Your task to perform on an android device: install app "Microsoft Excel" Image 0: 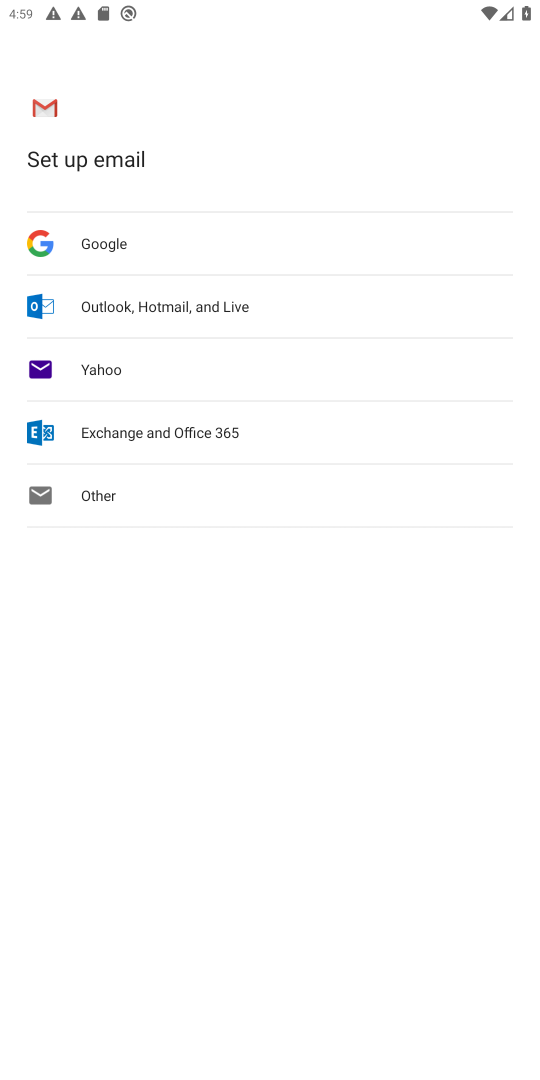
Step 0: press home button
Your task to perform on an android device: install app "Microsoft Excel" Image 1: 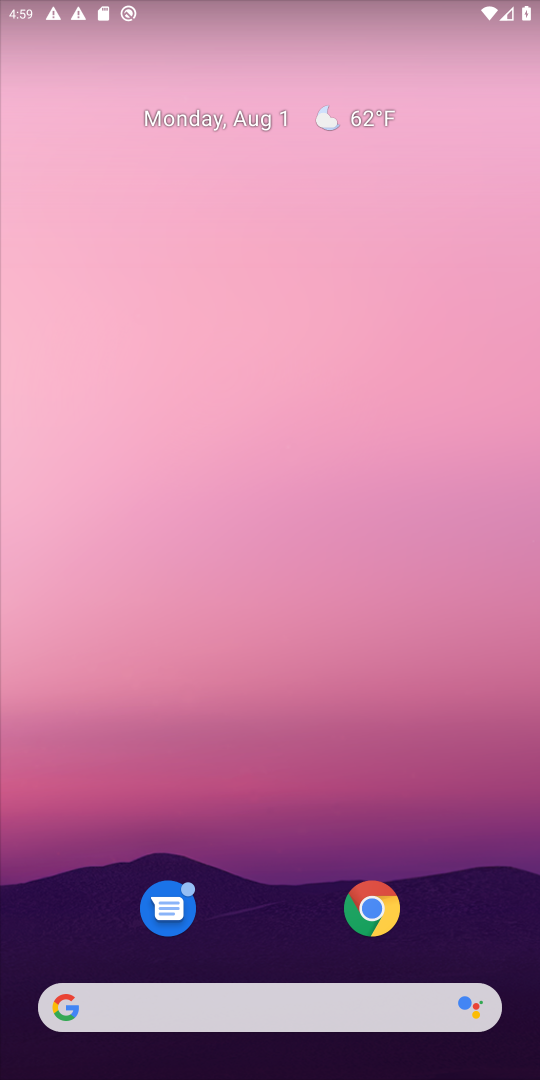
Step 1: drag from (240, 741) to (246, 61)
Your task to perform on an android device: install app "Microsoft Excel" Image 2: 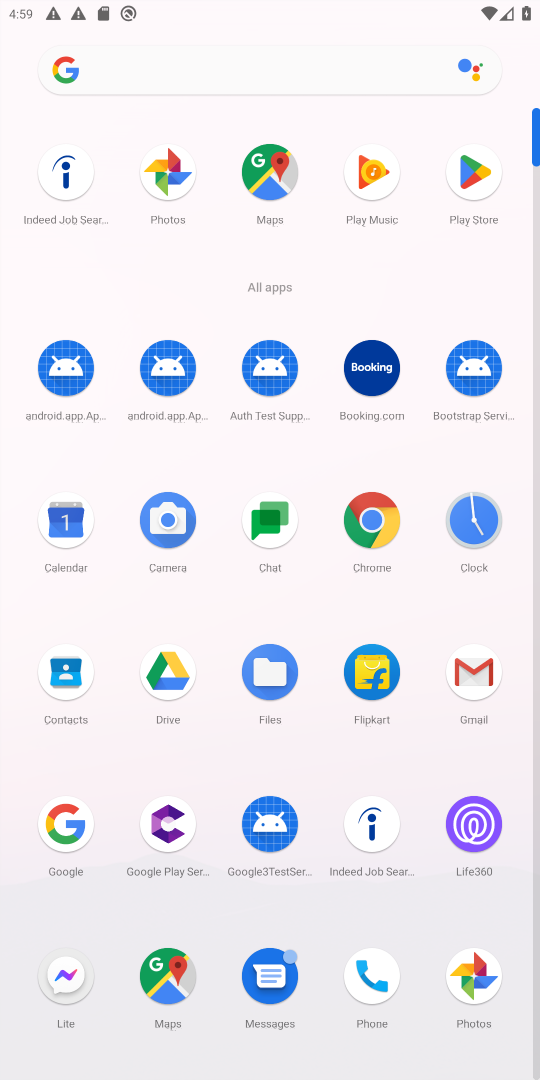
Step 2: click (460, 182)
Your task to perform on an android device: install app "Microsoft Excel" Image 3: 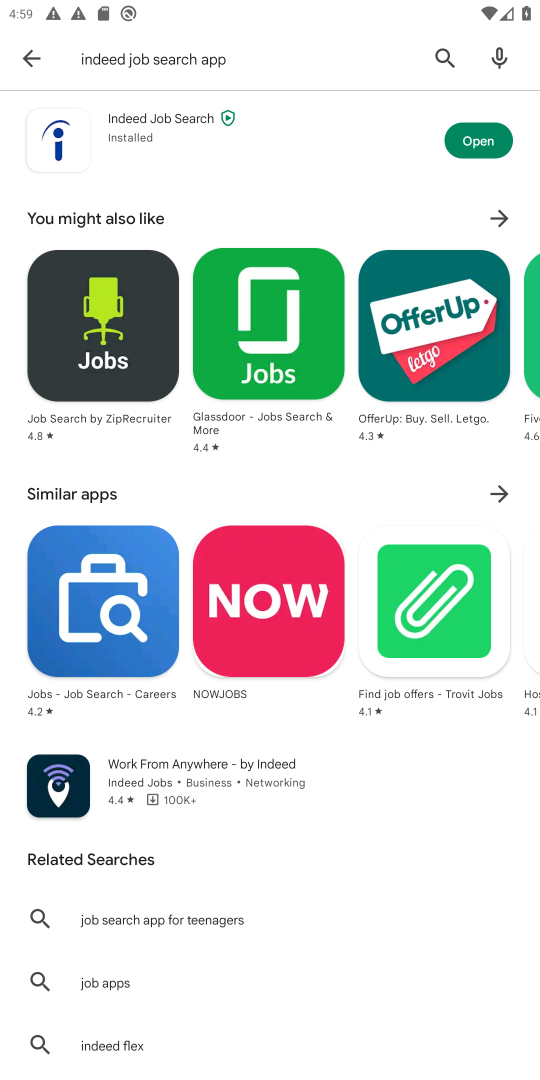
Step 3: click (197, 56)
Your task to perform on an android device: install app "Microsoft Excel" Image 4: 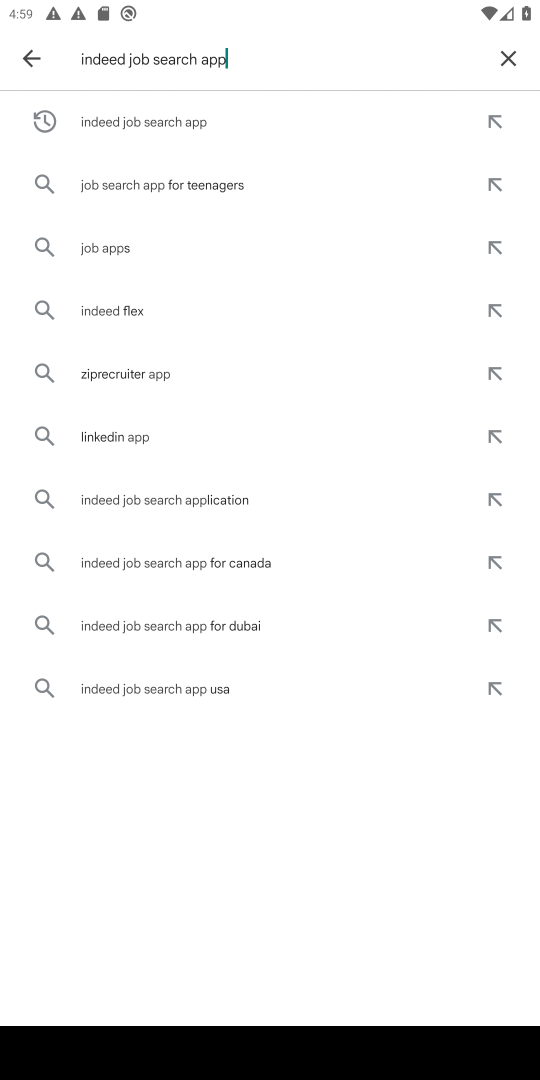
Step 4: click (498, 54)
Your task to perform on an android device: install app "Microsoft Excel" Image 5: 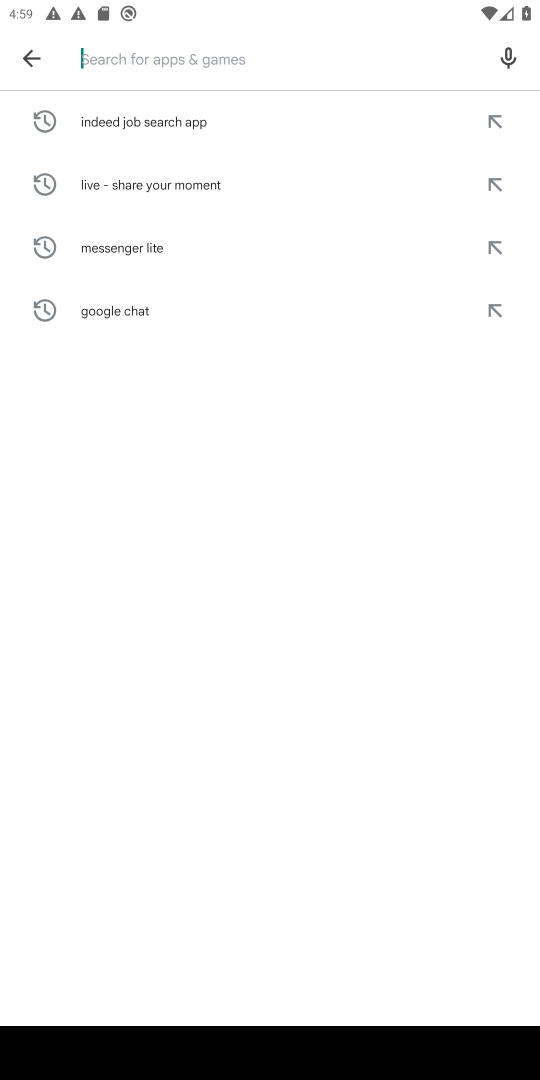
Step 5: type "Indeed Job Search"
Your task to perform on an android device: install app "Microsoft Excel" Image 6: 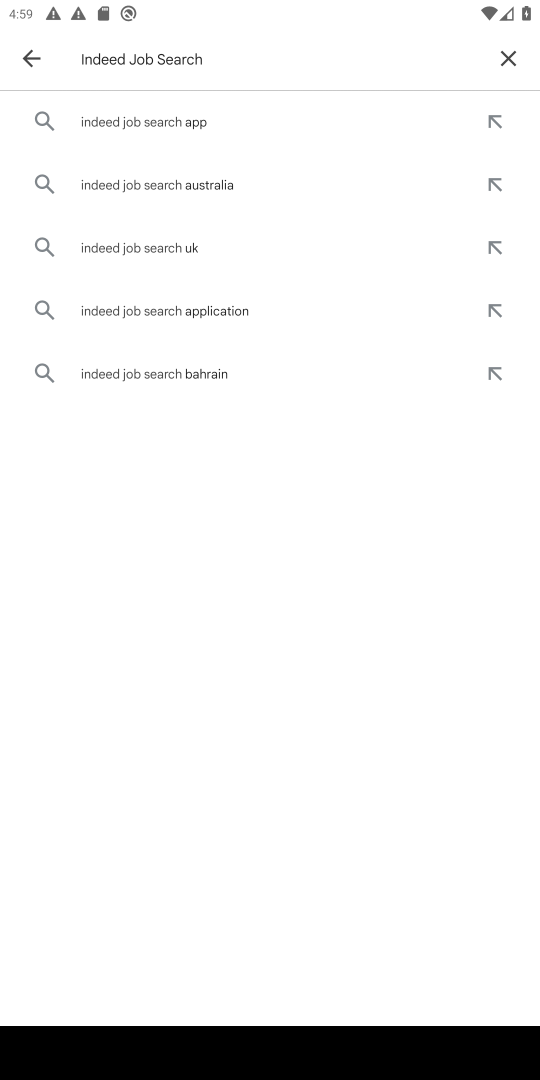
Step 6: click (160, 121)
Your task to perform on an android device: install app "Microsoft Excel" Image 7: 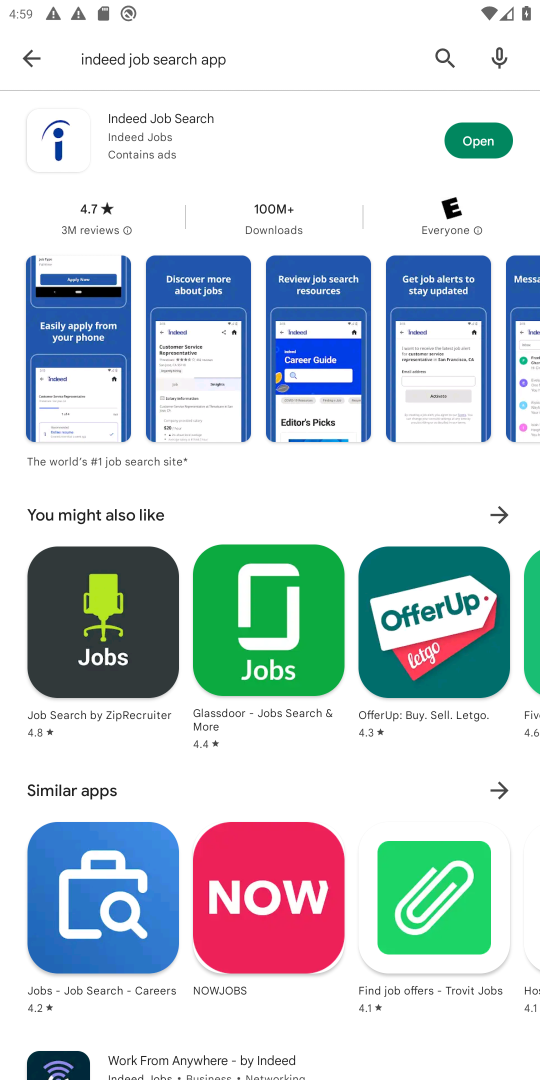
Step 7: click (29, 42)
Your task to perform on an android device: install app "Microsoft Excel" Image 8: 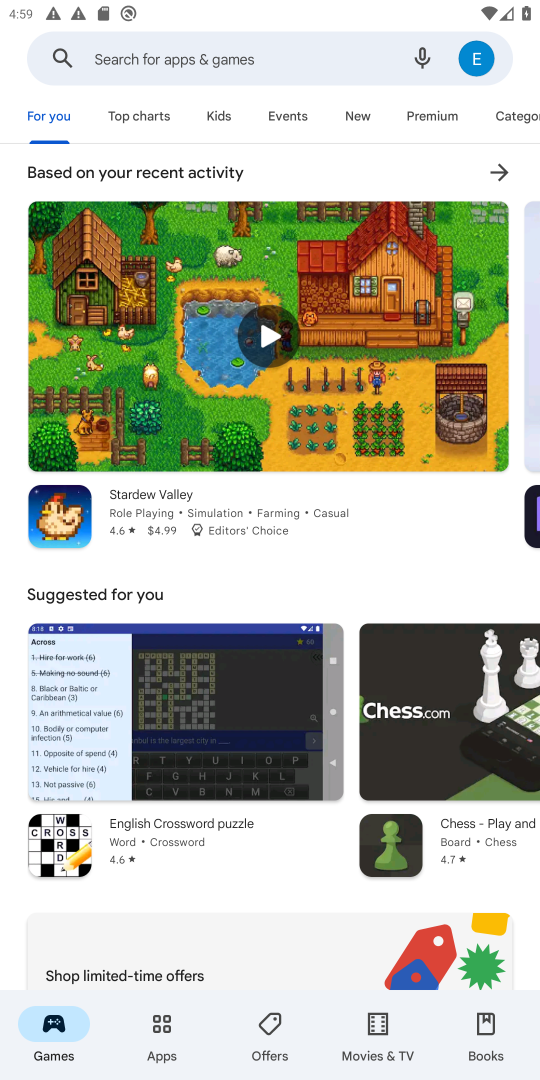
Step 8: click (211, 54)
Your task to perform on an android device: install app "Microsoft Excel" Image 9: 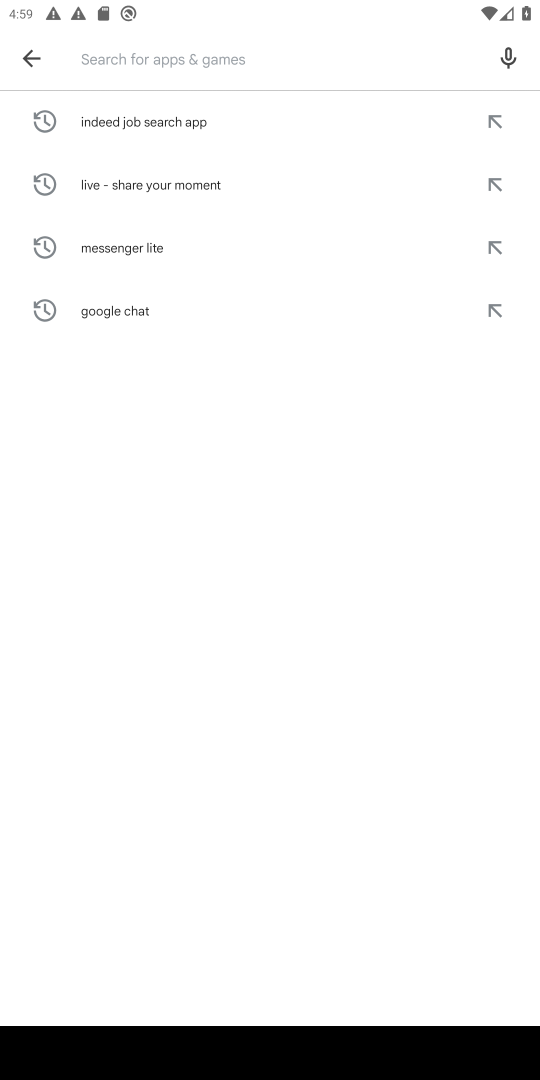
Step 9: type "Indeed Job Search"
Your task to perform on an android device: install app "Microsoft Excel" Image 10: 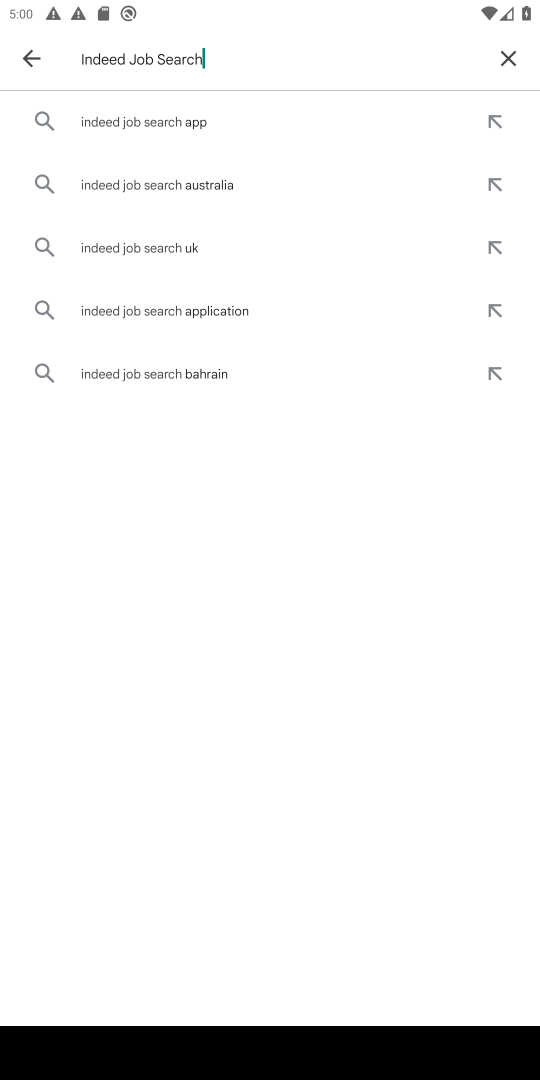
Step 10: click (154, 123)
Your task to perform on an android device: install app "Microsoft Excel" Image 11: 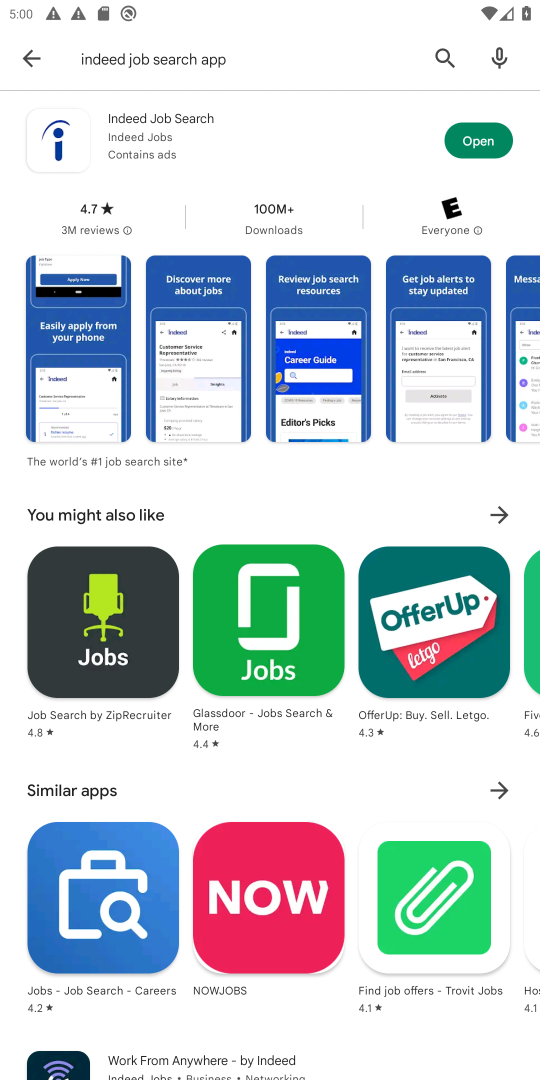
Step 11: click (19, 50)
Your task to perform on an android device: install app "Microsoft Excel" Image 12: 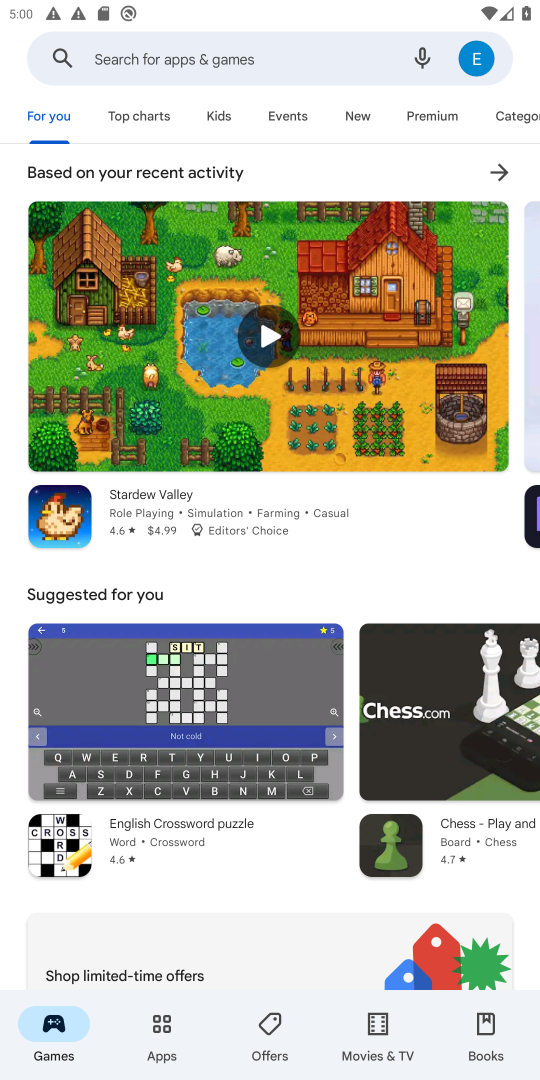
Step 12: click (141, 46)
Your task to perform on an android device: install app "Microsoft Excel" Image 13: 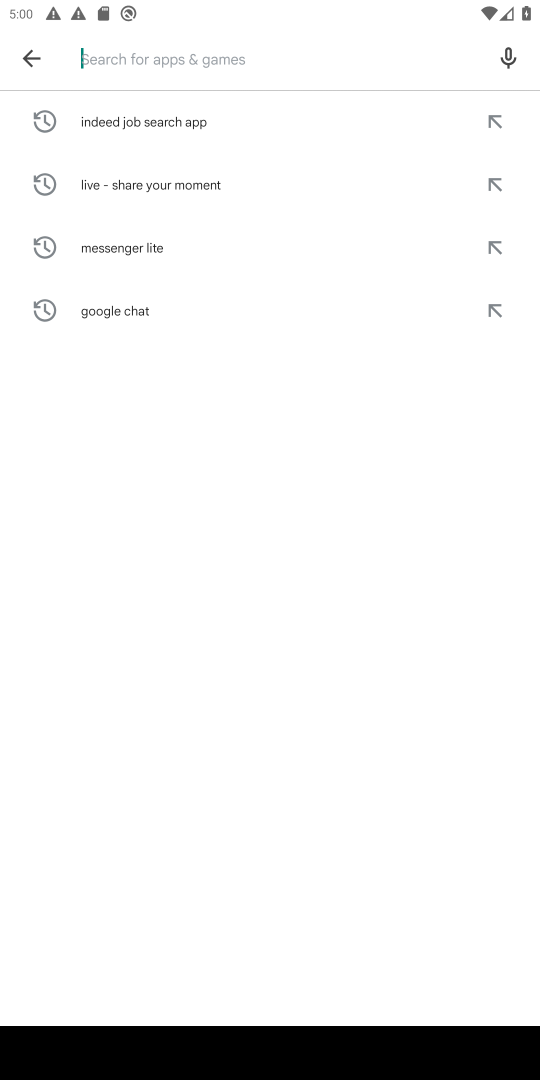
Step 13: type "Microsoft Excel"
Your task to perform on an android device: install app "Microsoft Excel" Image 14: 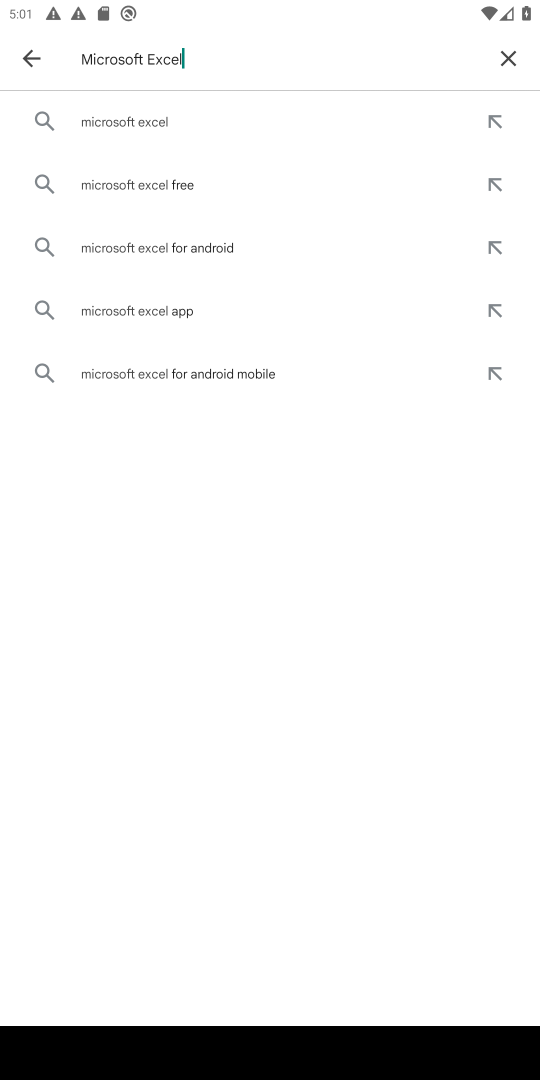
Step 14: click (169, 125)
Your task to perform on an android device: install app "Microsoft Excel" Image 15: 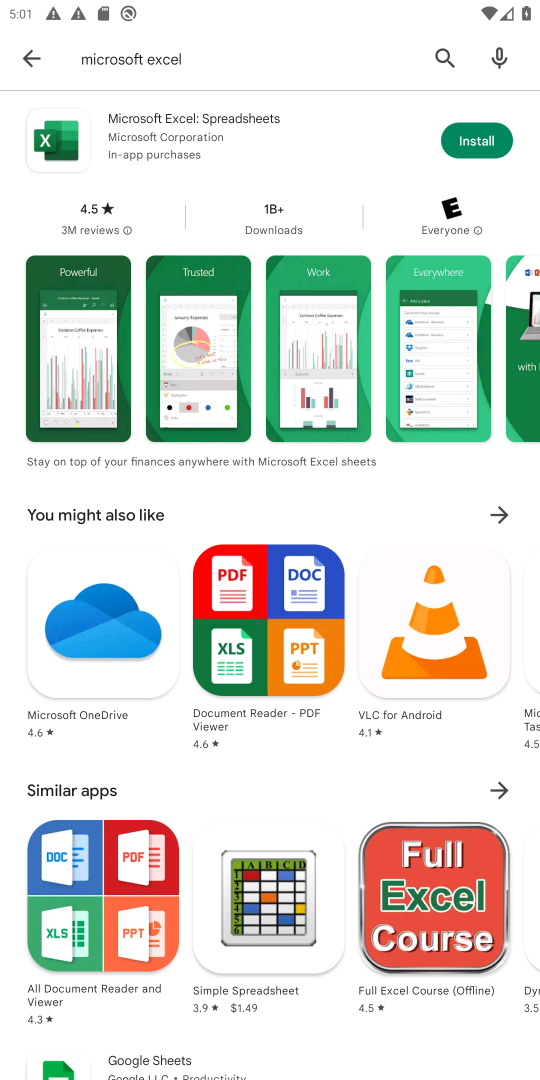
Step 15: click (488, 142)
Your task to perform on an android device: install app "Microsoft Excel" Image 16: 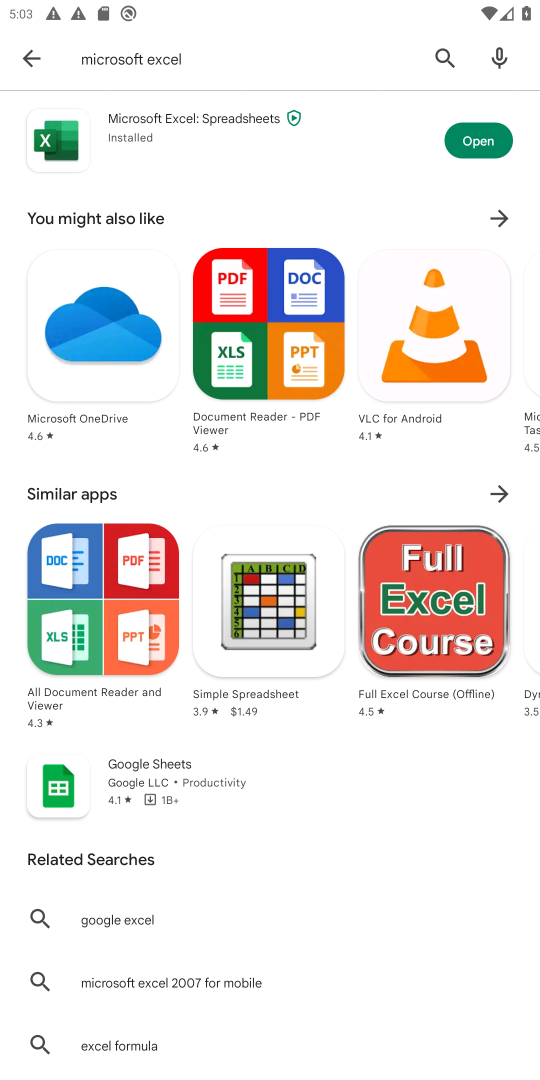
Step 16: click (485, 143)
Your task to perform on an android device: install app "Microsoft Excel" Image 17: 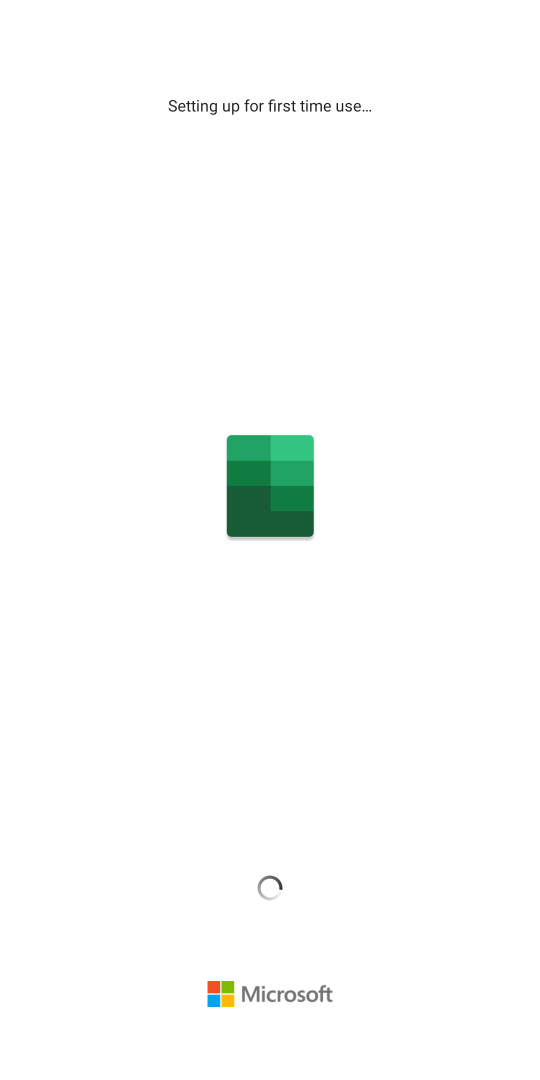
Step 17: task complete